Your task to perform on an android device: change your default location settings in chrome Image 0: 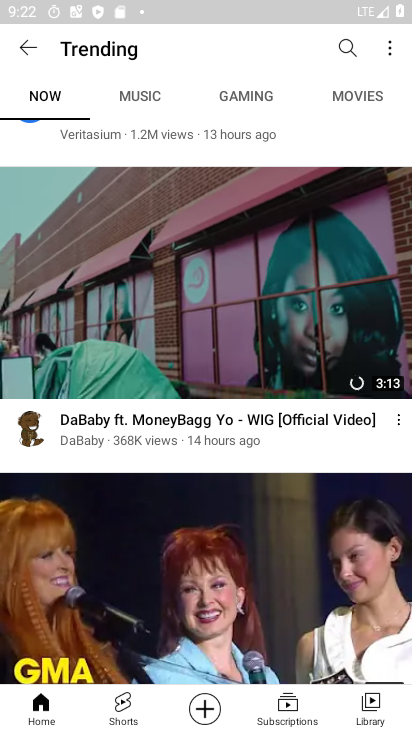
Step 0: press back button
Your task to perform on an android device: change your default location settings in chrome Image 1: 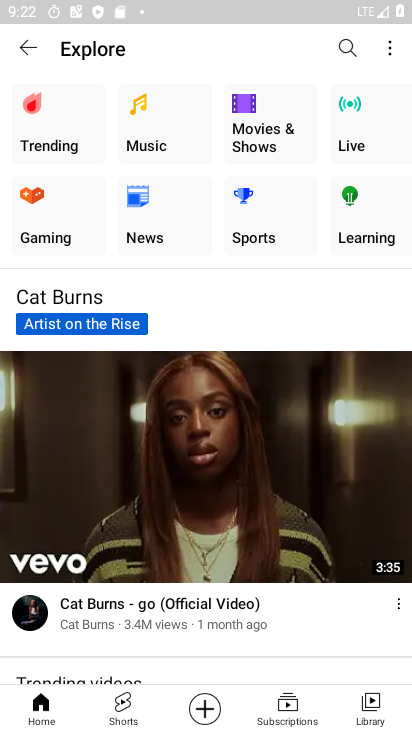
Step 1: press back button
Your task to perform on an android device: change your default location settings in chrome Image 2: 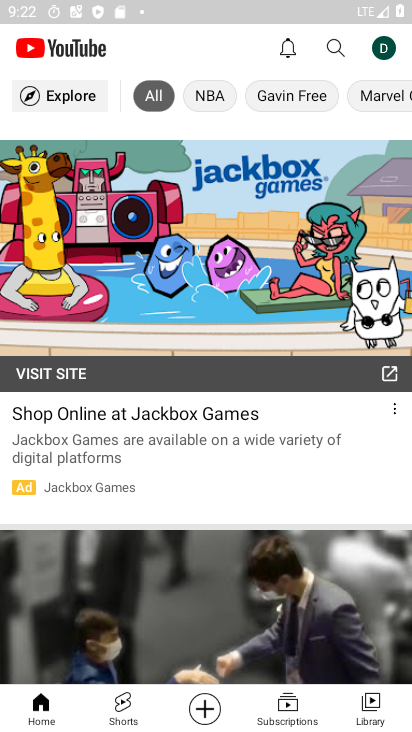
Step 2: press home button
Your task to perform on an android device: change your default location settings in chrome Image 3: 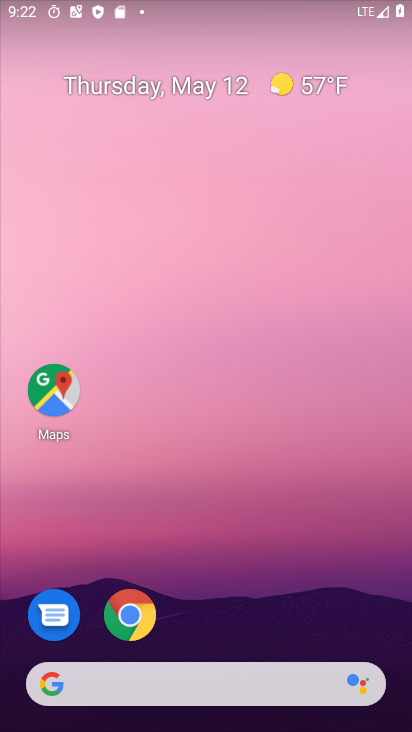
Step 3: drag from (239, 605) to (256, 48)
Your task to perform on an android device: change your default location settings in chrome Image 4: 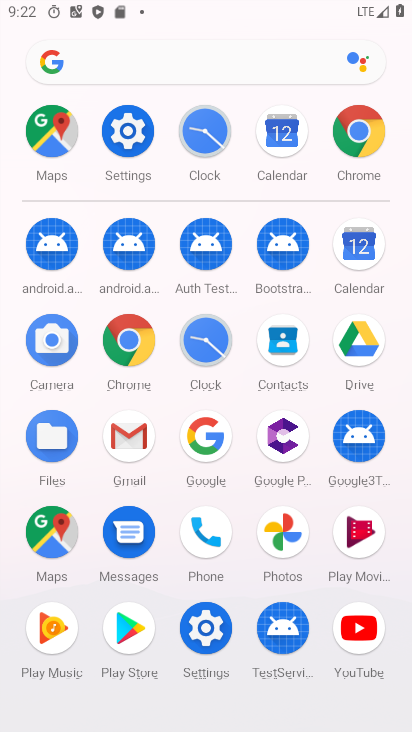
Step 4: click (124, 336)
Your task to perform on an android device: change your default location settings in chrome Image 5: 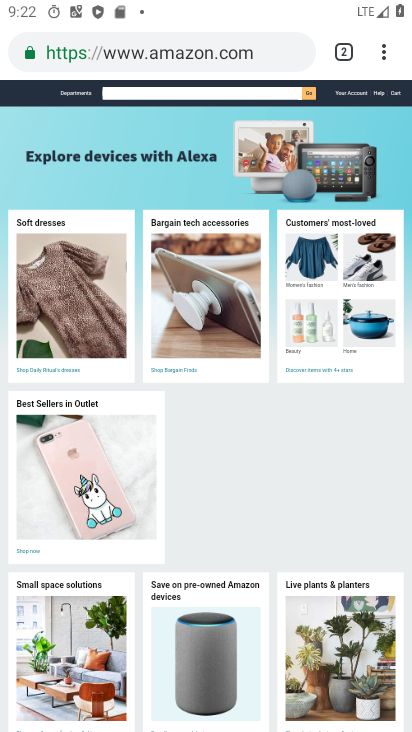
Step 5: drag from (387, 53) to (210, 633)
Your task to perform on an android device: change your default location settings in chrome Image 6: 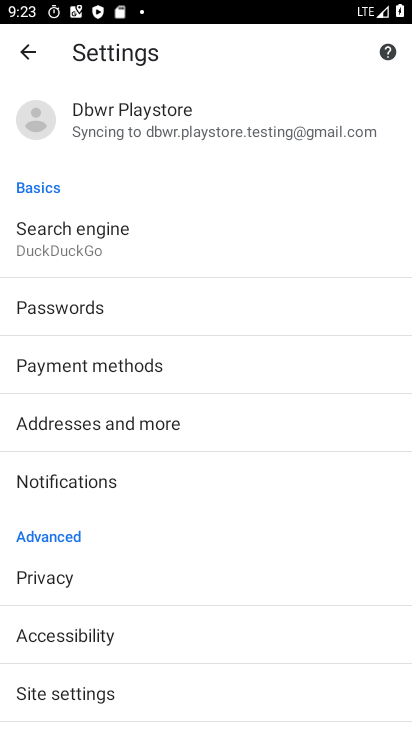
Step 6: click (97, 685)
Your task to perform on an android device: change your default location settings in chrome Image 7: 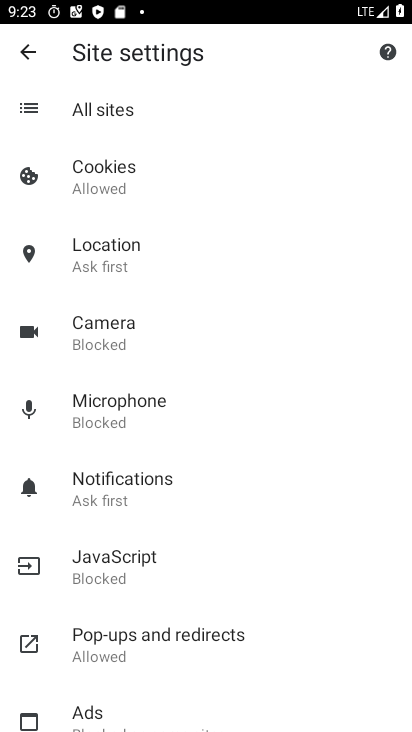
Step 7: click (127, 245)
Your task to perform on an android device: change your default location settings in chrome Image 8: 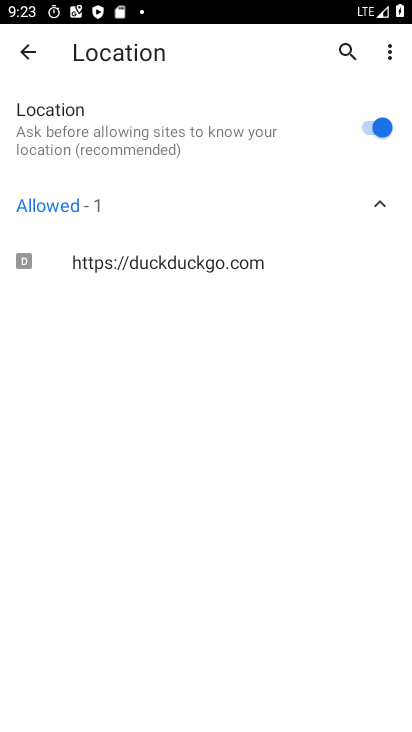
Step 8: task complete